Your task to perform on an android device: Open Youtube and go to "Your channel" Image 0: 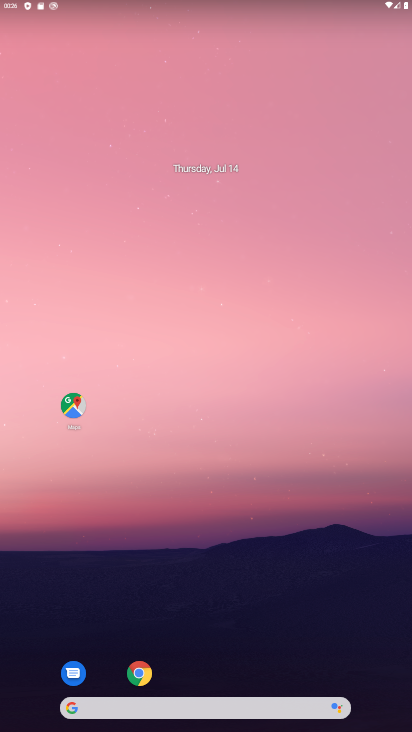
Step 0: drag from (277, 626) to (223, 203)
Your task to perform on an android device: Open Youtube and go to "Your channel" Image 1: 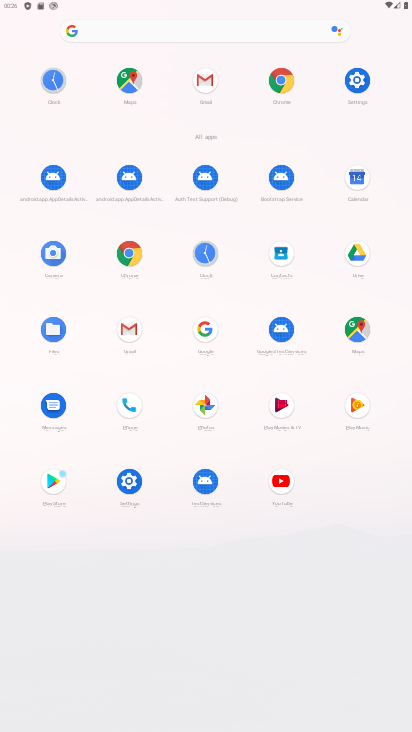
Step 1: click (283, 487)
Your task to perform on an android device: Open Youtube and go to "Your channel" Image 2: 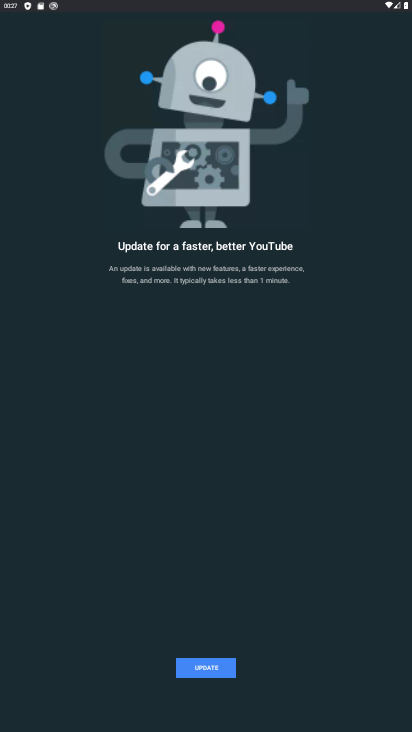
Step 2: click (207, 675)
Your task to perform on an android device: Open Youtube and go to "Your channel" Image 3: 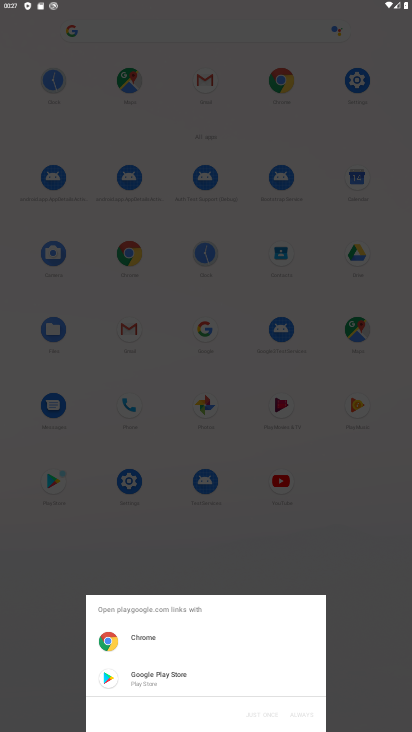
Step 3: click (195, 672)
Your task to perform on an android device: Open Youtube and go to "Your channel" Image 4: 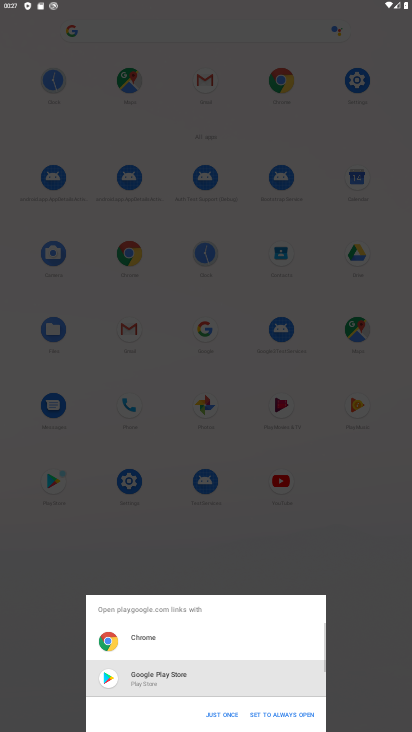
Step 4: click (220, 716)
Your task to perform on an android device: Open Youtube and go to "Your channel" Image 5: 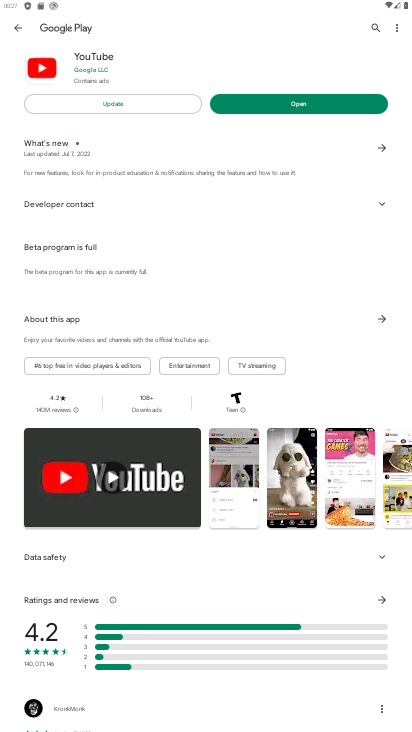
Step 5: click (129, 107)
Your task to perform on an android device: Open Youtube and go to "Your channel" Image 6: 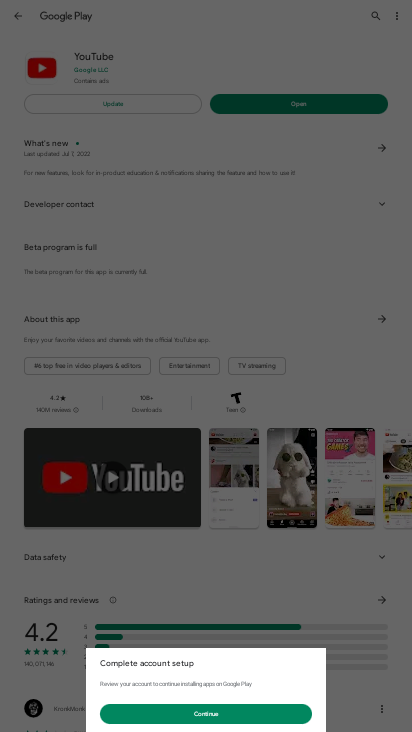
Step 6: click (180, 705)
Your task to perform on an android device: Open Youtube and go to "Your channel" Image 7: 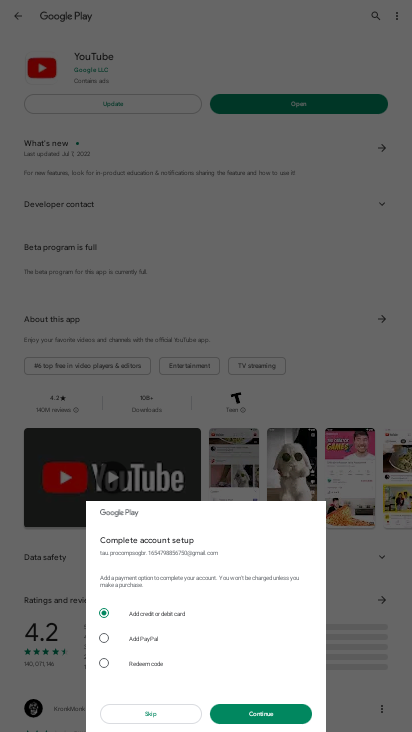
Step 7: click (172, 713)
Your task to perform on an android device: Open Youtube and go to "Your channel" Image 8: 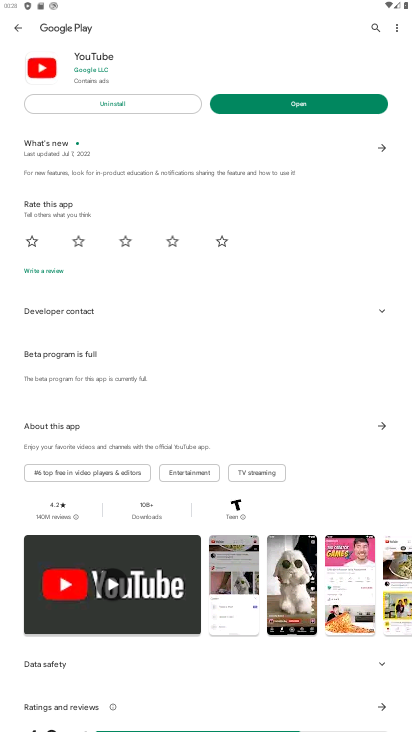
Step 8: click (272, 109)
Your task to perform on an android device: Open Youtube and go to "Your channel" Image 9: 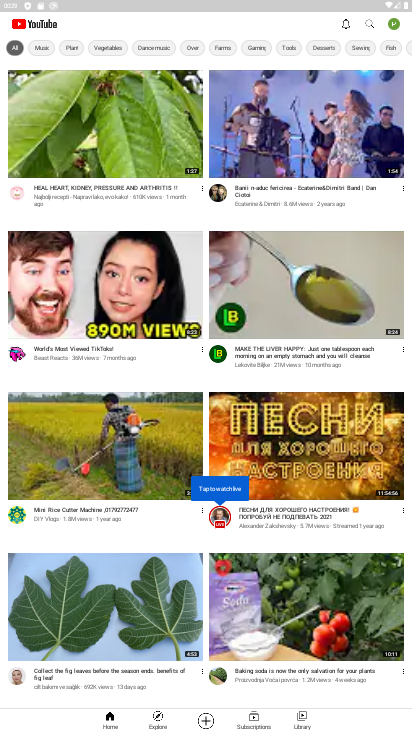
Step 9: click (390, 32)
Your task to perform on an android device: Open Youtube and go to "Your channel" Image 10: 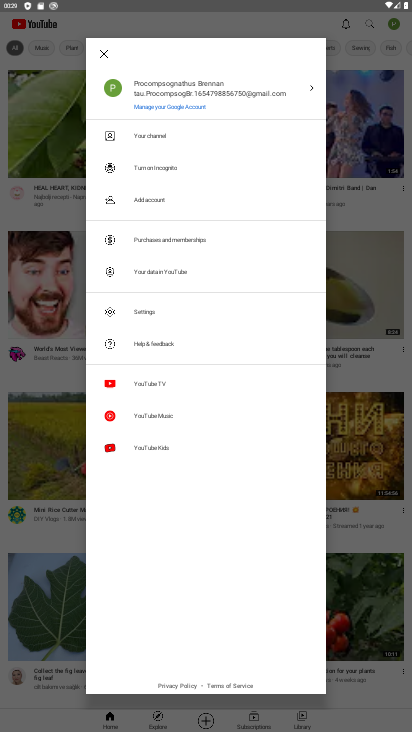
Step 10: click (206, 134)
Your task to perform on an android device: Open Youtube and go to "Your channel" Image 11: 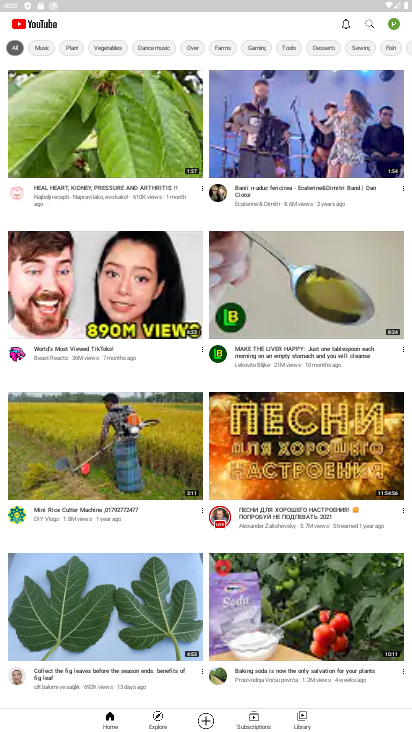
Step 11: task complete